Your task to perform on an android device: toggle notifications settings in the gmail app Image 0: 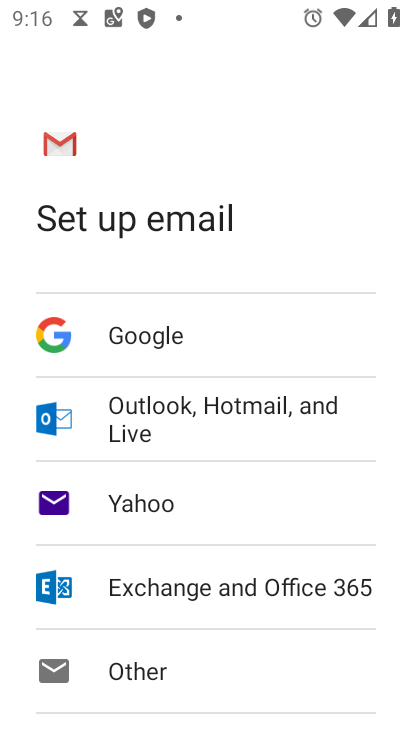
Step 0: press home button
Your task to perform on an android device: toggle notifications settings in the gmail app Image 1: 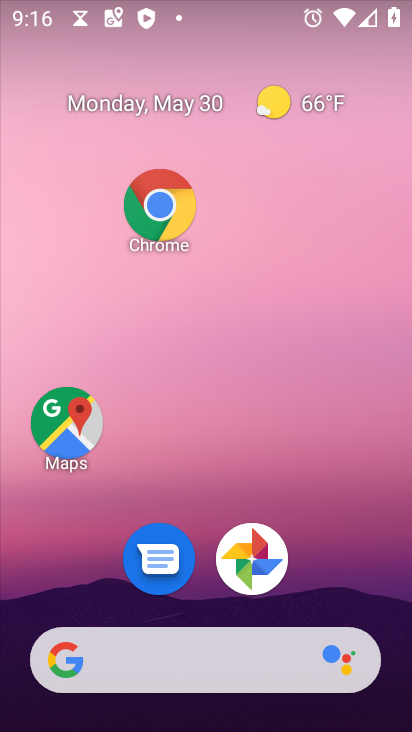
Step 1: drag from (211, 698) to (153, 224)
Your task to perform on an android device: toggle notifications settings in the gmail app Image 2: 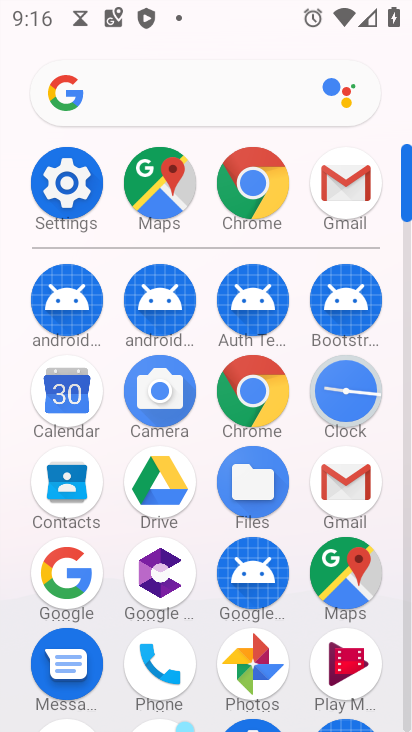
Step 2: click (335, 472)
Your task to perform on an android device: toggle notifications settings in the gmail app Image 3: 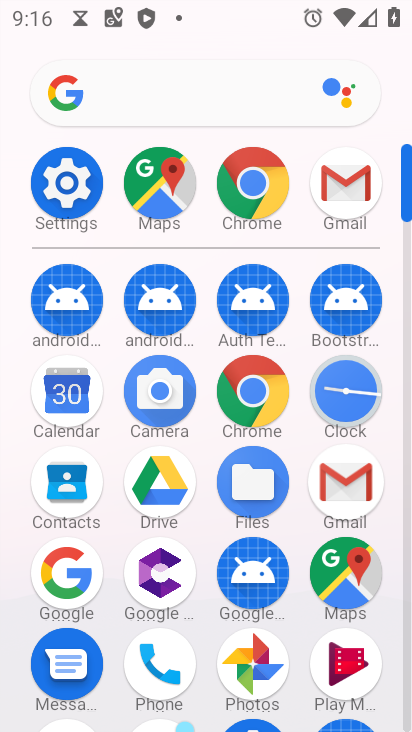
Step 3: click (335, 472)
Your task to perform on an android device: toggle notifications settings in the gmail app Image 4: 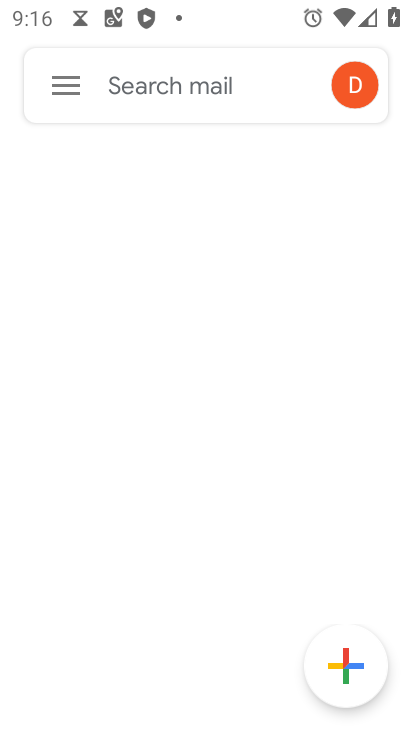
Step 4: click (335, 472)
Your task to perform on an android device: toggle notifications settings in the gmail app Image 5: 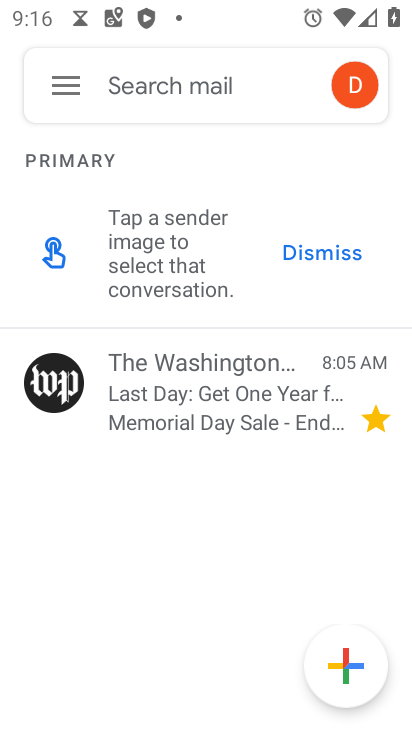
Step 5: press back button
Your task to perform on an android device: toggle notifications settings in the gmail app Image 6: 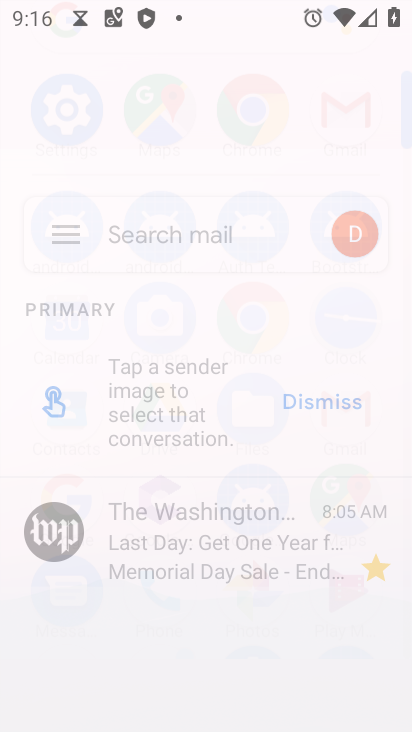
Step 6: press back button
Your task to perform on an android device: toggle notifications settings in the gmail app Image 7: 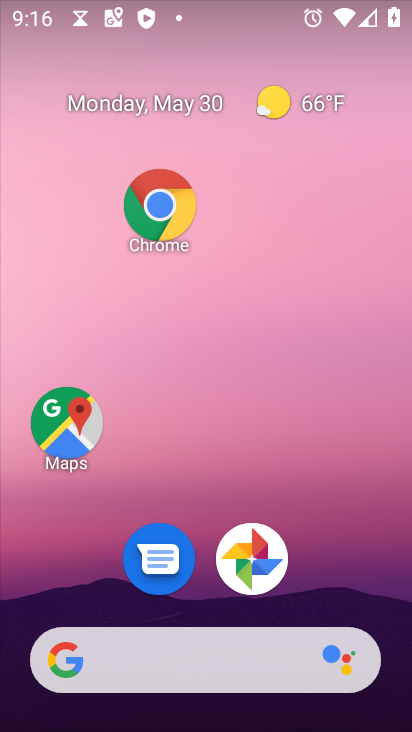
Step 7: drag from (296, 640) to (213, 92)
Your task to perform on an android device: toggle notifications settings in the gmail app Image 8: 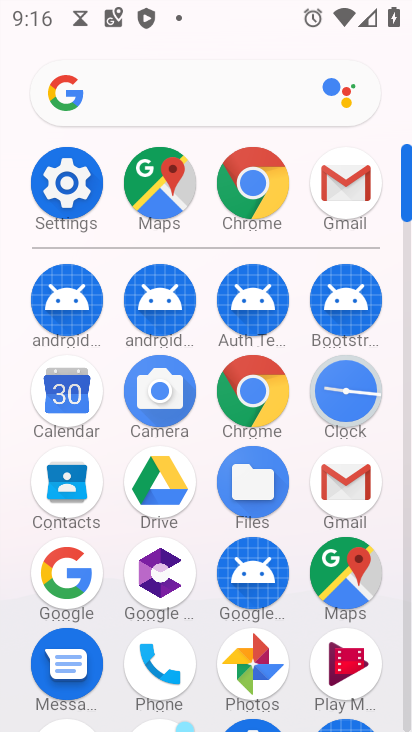
Step 8: click (338, 477)
Your task to perform on an android device: toggle notifications settings in the gmail app Image 9: 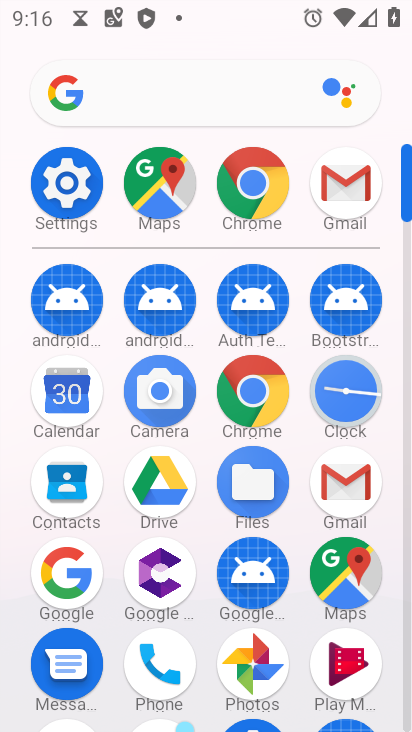
Step 9: click (338, 477)
Your task to perform on an android device: toggle notifications settings in the gmail app Image 10: 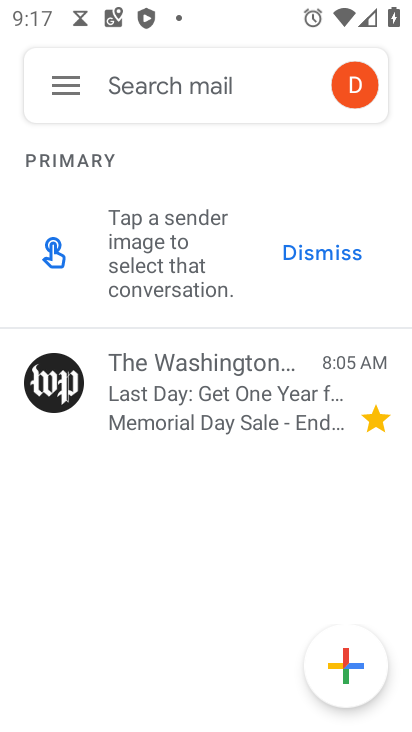
Step 10: press back button
Your task to perform on an android device: toggle notifications settings in the gmail app Image 11: 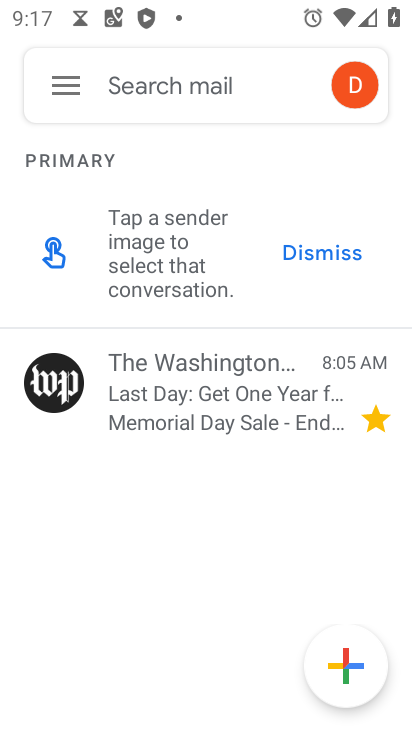
Step 11: press back button
Your task to perform on an android device: toggle notifications settings in the gmail app Image 12: 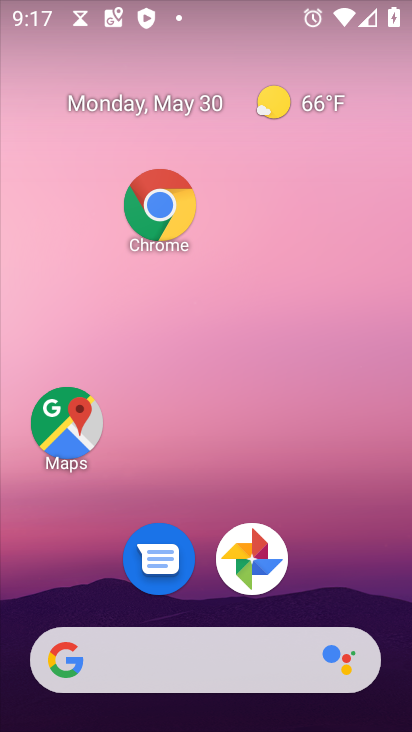
Step 12: drag from (269, 622) to (250, 79)
Your task to perform on an android device: toggle notifications settings in the gmail app Image 13: 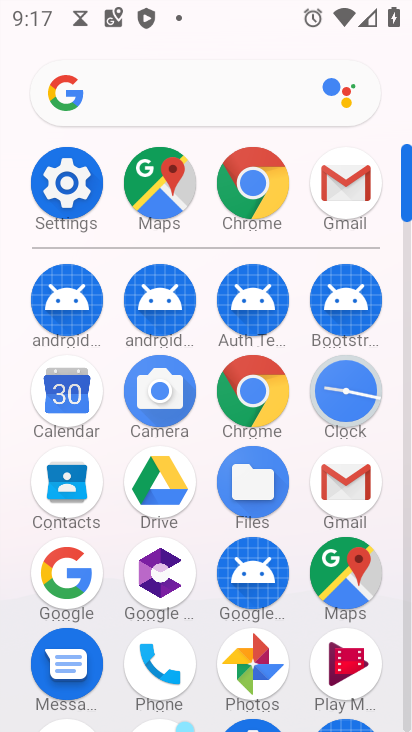
Step 13: click (337, 478)
Your task to perform on an android device: toggle notifications settings in the gmail app Image 14: 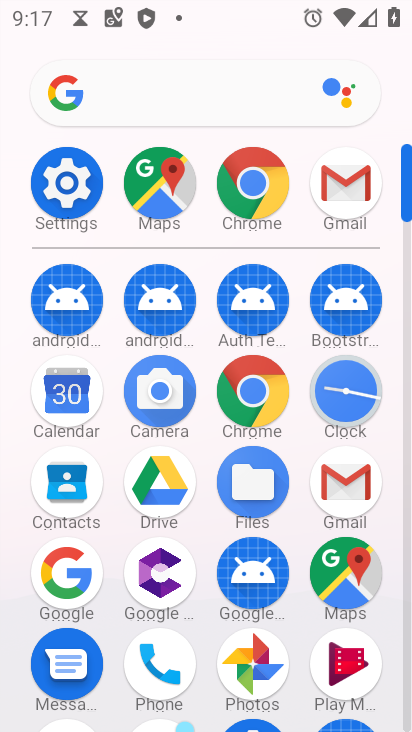
Step 14: click (338, 477)
Your task to perform on an android device: toggle notifications settings in the gmail app Image 15: 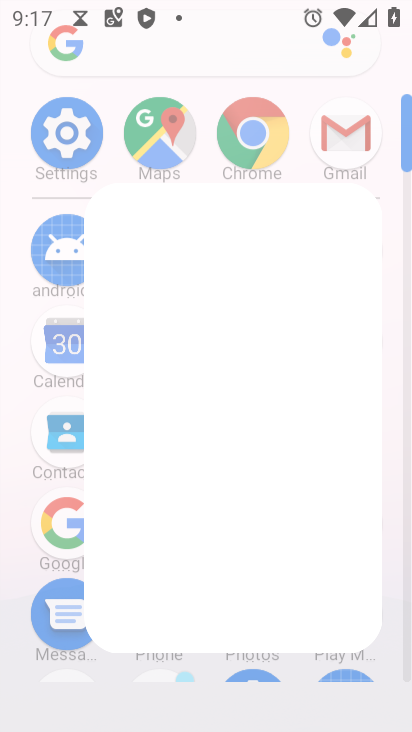
Step 15: click (338, 477)
Your task to perform on an android device: toggle notifications settings in the gmail app Image 16: 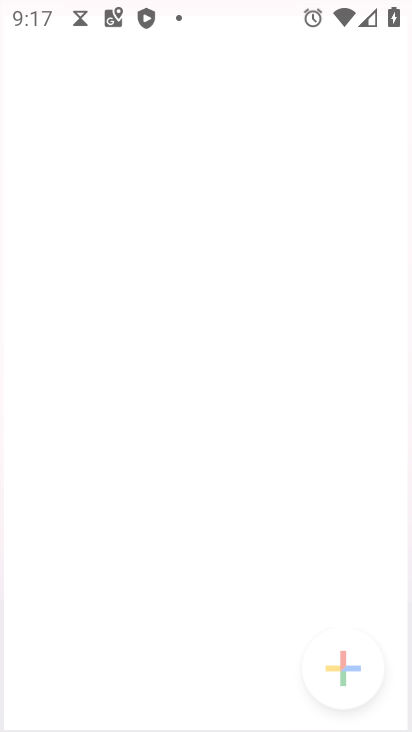
Step 16: click (338, 477)
Your task to perform on an android device: toggle notifications settings in the gmail app Image 17: 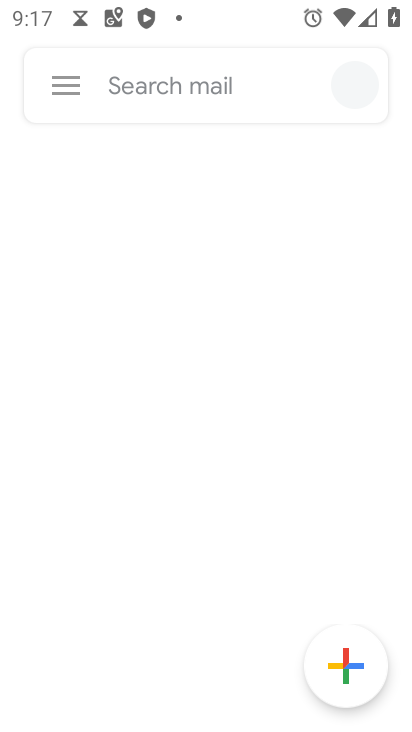
Step 17: click (339, 477)
Your task to perform on an android device: toggle notifications settings in the gmail app Image 18: 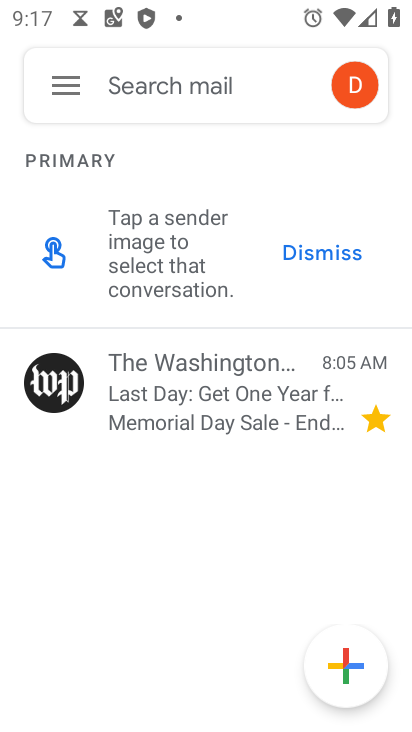
Step 18: press home button
Your task to perform on an android device: toggle notifications settings in the gmail app Image 19: 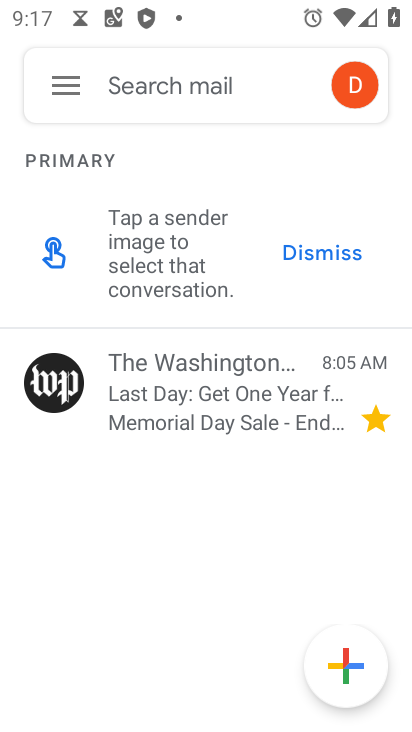
Step 19: press home button
Your task to perform on an android device: toggle notifications settings in the gmail app Image 20: 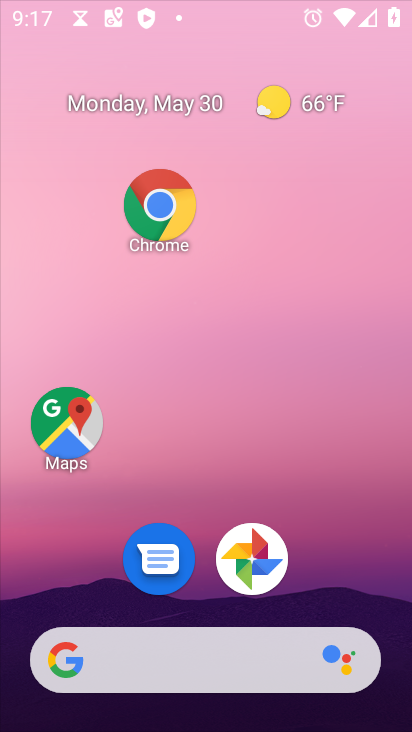
Step 20: press home button
Your task to perform on an android device: toggle notifications settings in the gmail app Image 21: 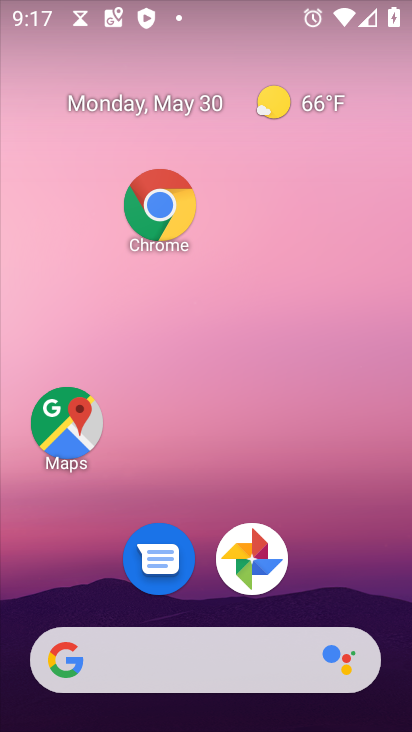
Step 21: drag from (289, 653) to (182, 115)
Your task to perform on an android device: toggle notifications settings in the gmail app Image 22: 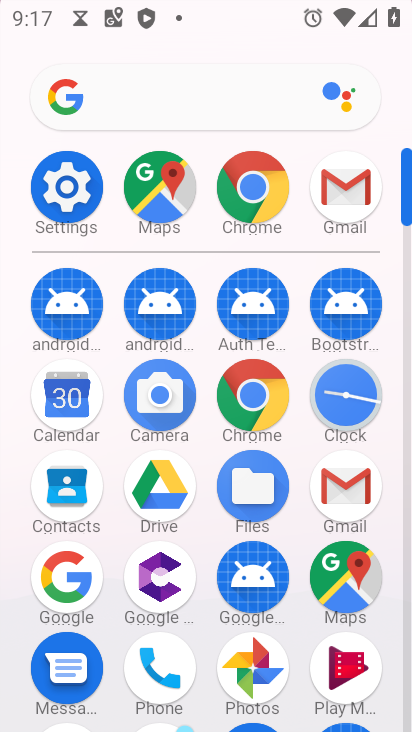
Step 22: drag from (263, 542) to (202, 117)
Your task to perform on an android device: toggle notifications settings in the gmail app Image 23: 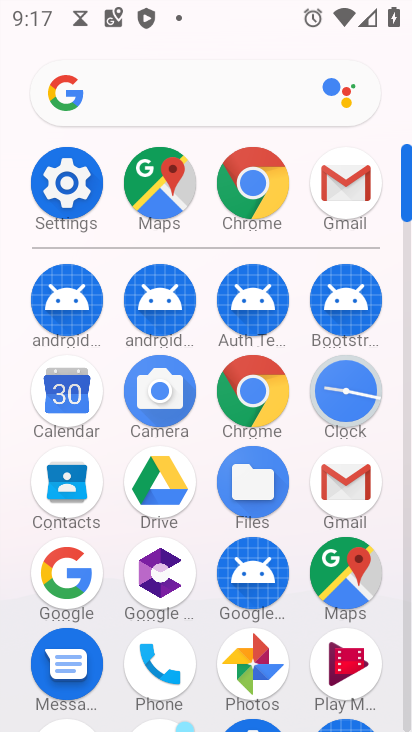
Step 23: click (338, 475)
Your task to perform on an android device: toggle notifications settings in the gmail app Image 24: 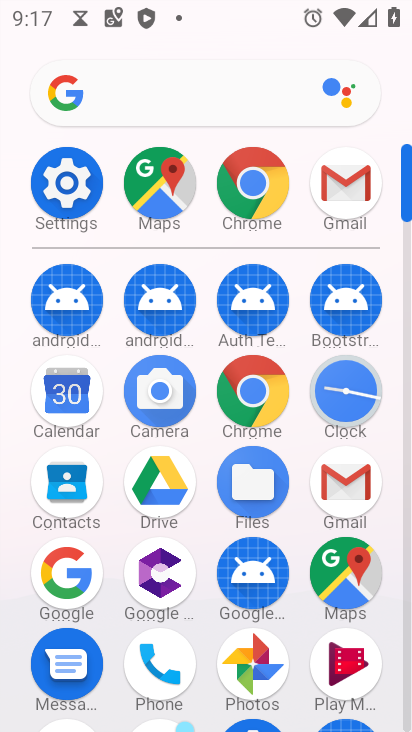
Step 24: click (345, 483)
Your task to perform on an android device: toggle notifications settings in the gmail app Image 25: 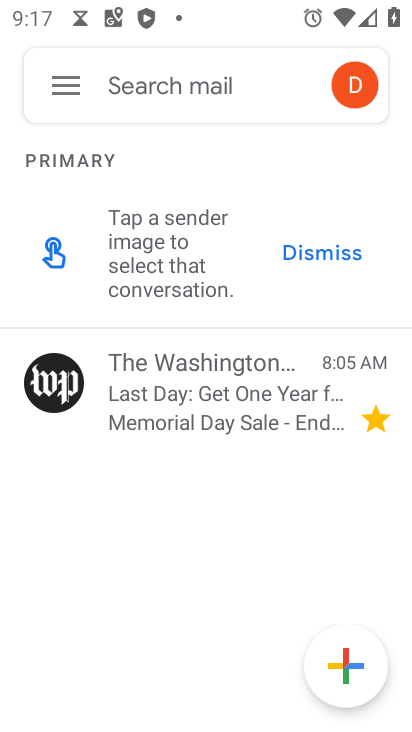
Step 25: click (345, 486)
Your task to perform on an android device: toggle notifications settings in the gmail app Image 26: 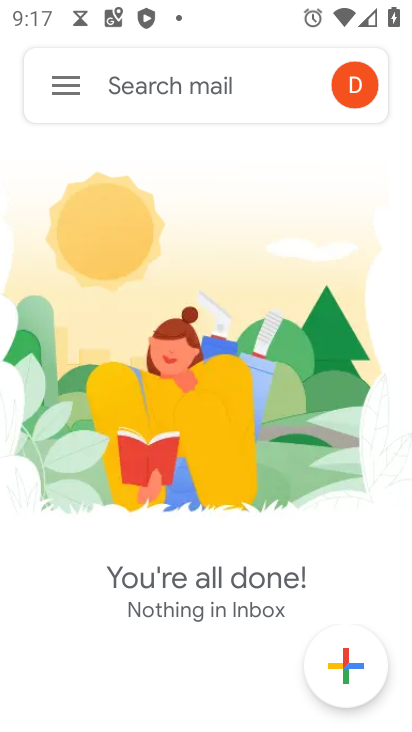
Step 26: click (72, 86)
Your task to perform on an android device: toggle notifications settings in the gmail app Image 27: 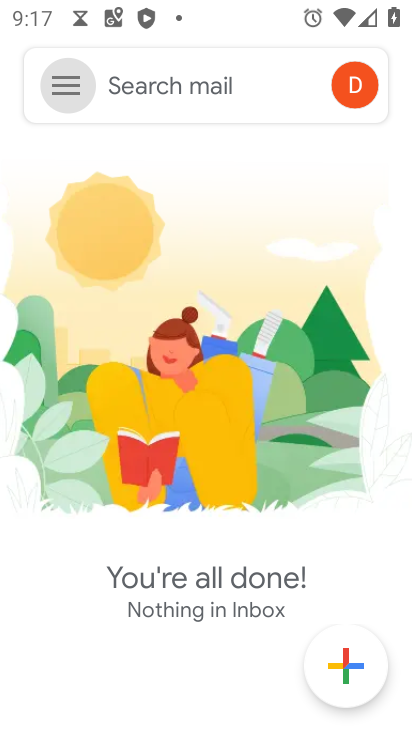
Step 27: click (72, 86)
Your task to perform on an android device: toggle notifications settings in the gmail app Image 28: 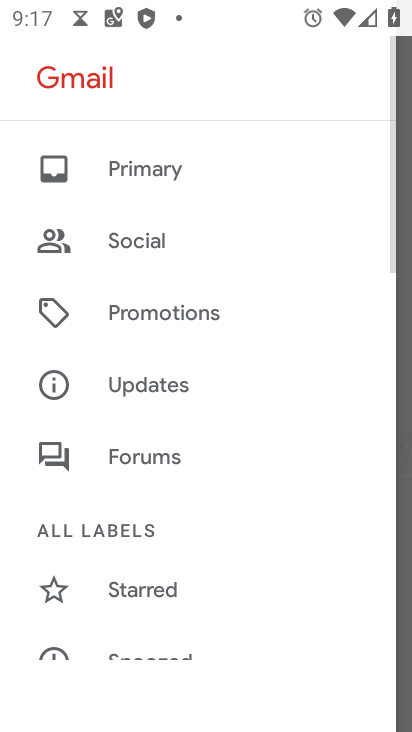
Step 28: drag from (164, 570) to (126, 173)
Your task to perform on an android device: toggle notifications settings in the gmail app Image 29: 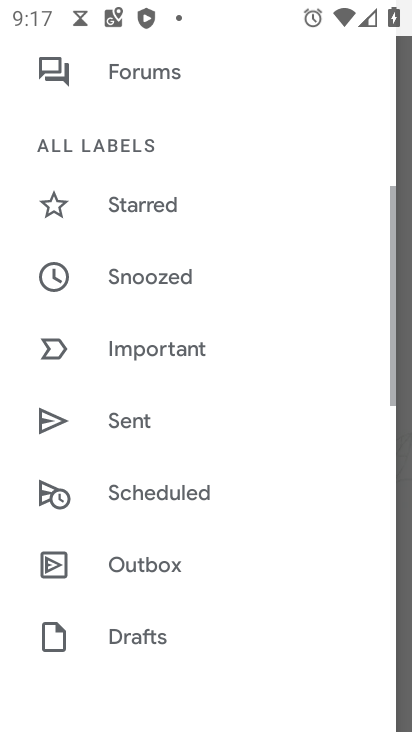
Step 29: drag from (189, 430) to (191, 98)
Your task to perform on an android device: toggle notifications settings in the gmail app Image 30: 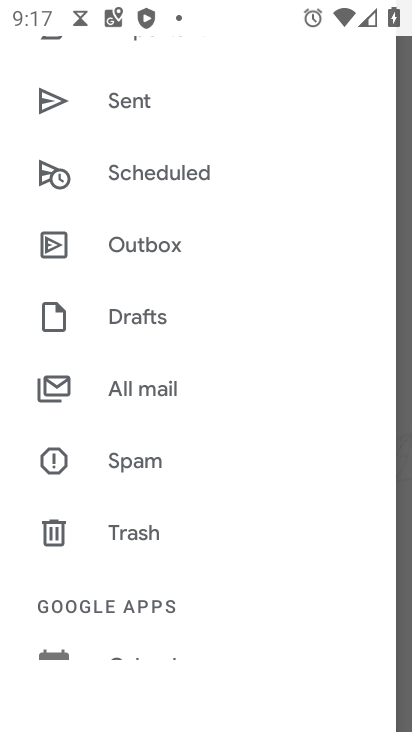
Step 30: drag from (142, 560) to (142, 201)
Your task to perform on an android device: toggle notifications settings in the gmail app Image 31: 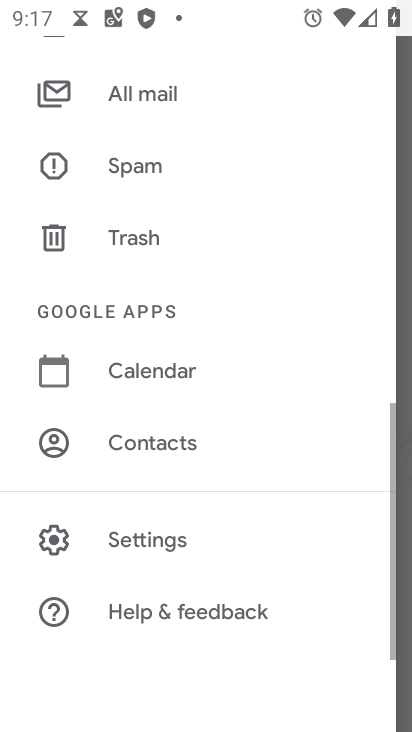
Step 31: drag from (211, 438) to (185, 92)
Your task to perform on an android device: toggle notifications settings in the gmail app Image 32: 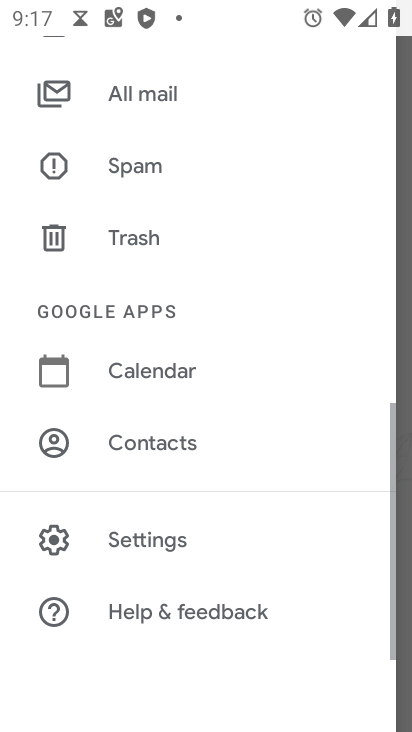
Step 32: click (140, 544)
Your task to perform on an android device: toggle notifications settings in the gmail app Image 33: 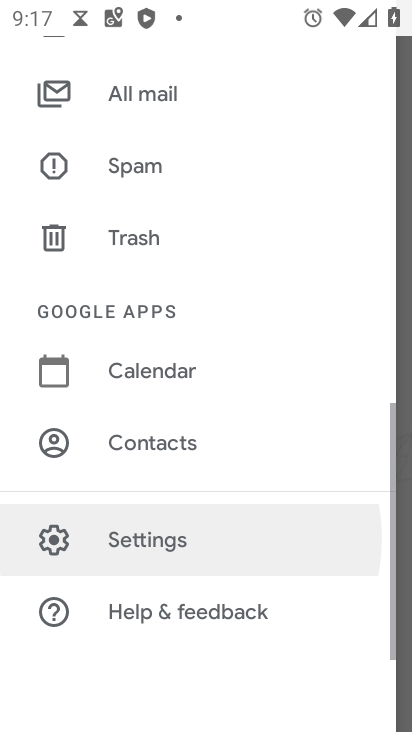
Step 33: click (140, 544)
Your task to perform on an android device: toggle notifications settings in the gmail app Image 34: 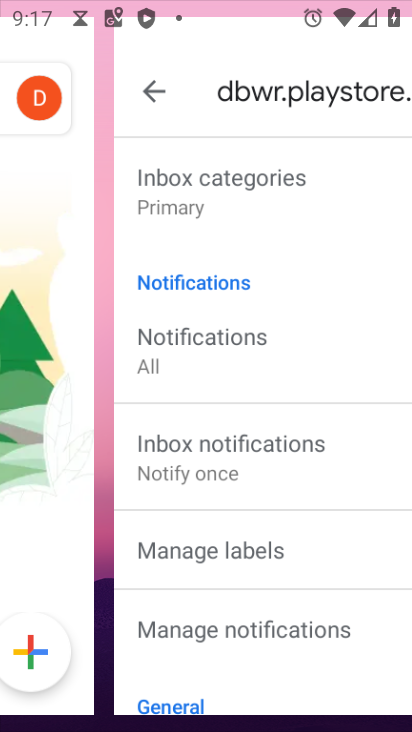
Step 34: click (136, 545)
Your task to perform on an android device: toggle notifications settings in the gmail app Image 35: 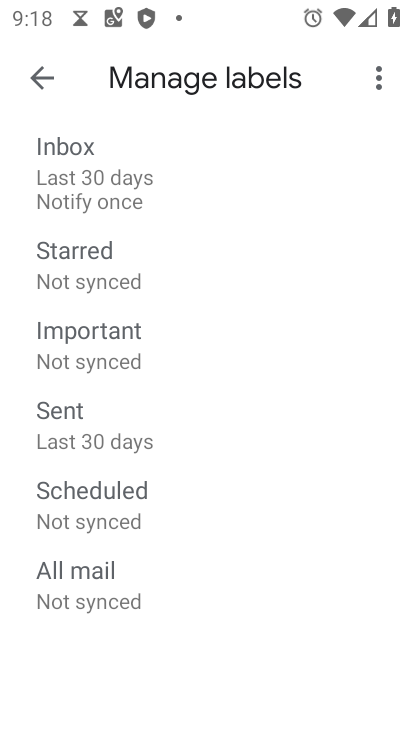
Step 35: click (31, 79)
Your task to perform on an android device: toggle notifications settings in the gmail app Image 36: 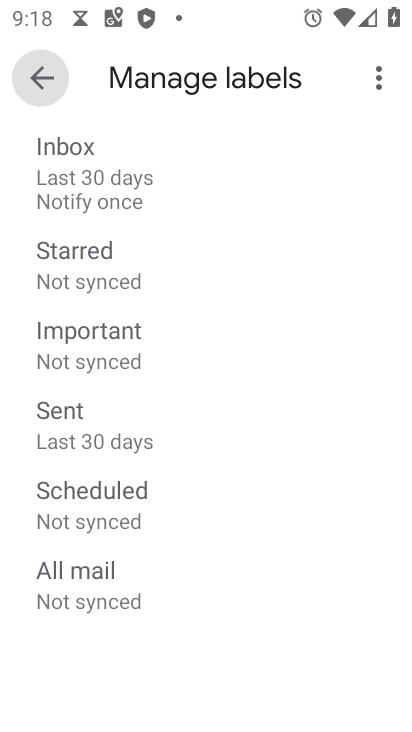
Step 36: click (32, 80)
Your task to perform on an android device: toggle notifications settings in the gmail app Image 37: 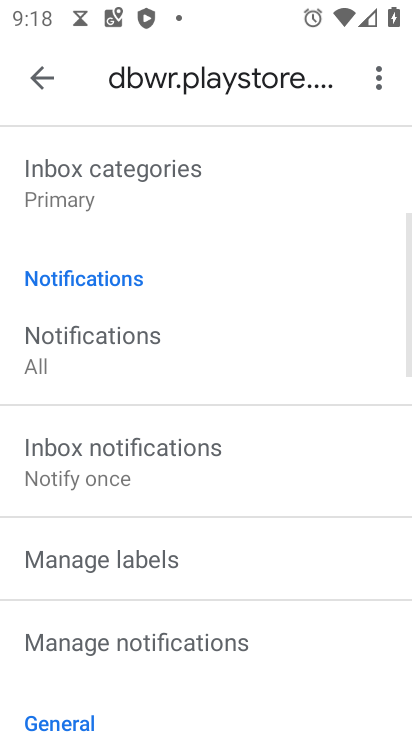
Step 37: click (99, 332)
Your task to perform on an android device: toggle notifications settings in the gmail app Image 38: 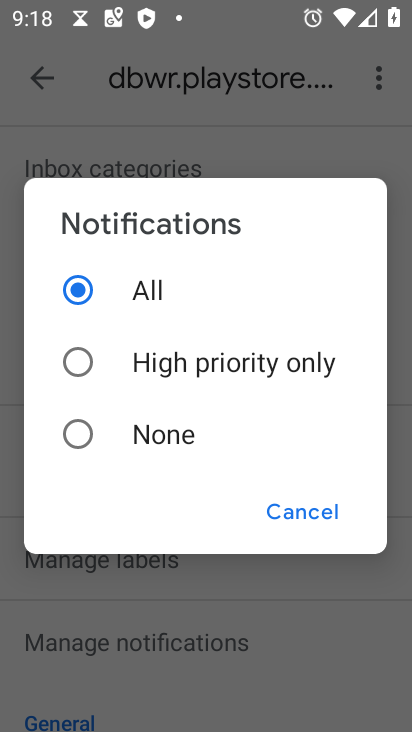
Step 38: click (79, 367)
Your task to perform on an android device: toggle notifications settings in the gmail app Image 39: 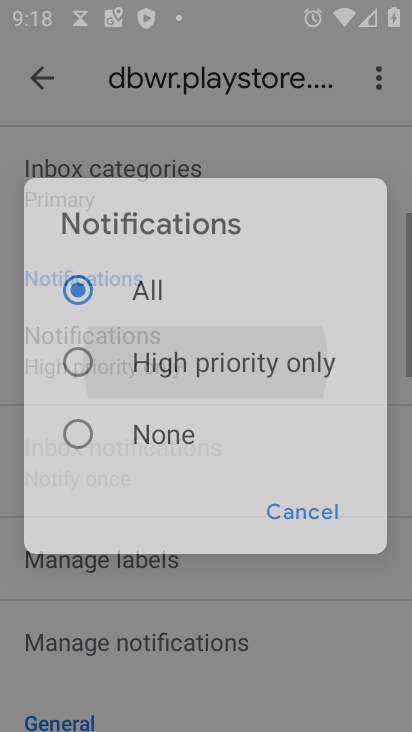
Step 39: click (79, 366)
Your task to perform on an android device: toggle notifications settings in the gmail app Image 40: 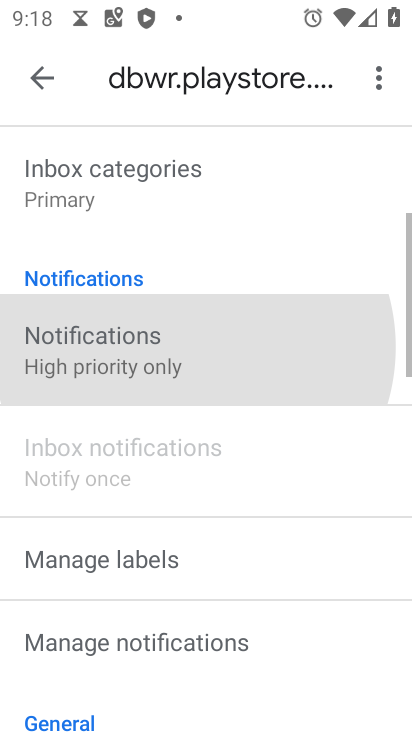
Step 40: click (81, 363)
Your task to perform on an android device: toggle notifications settings in the gmail app Image 41: 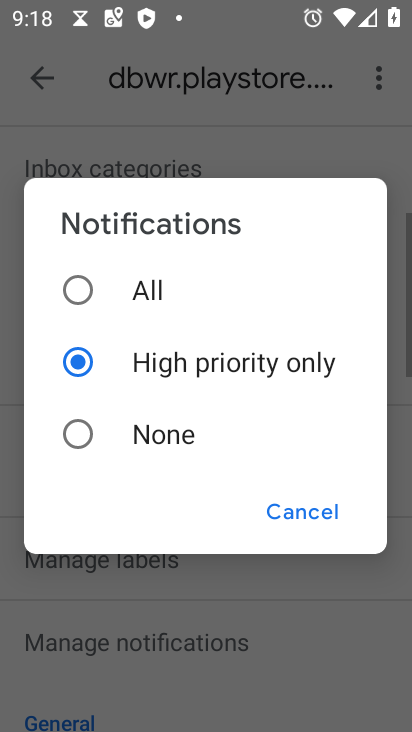
Step 41: click (287, 503)
Your task to perform on an android device: toggle notifications settings in the gmail app Image 42: 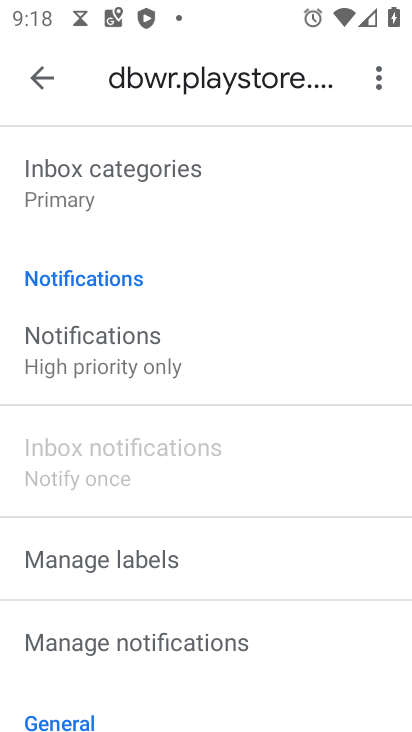
Step 42: task complete